Your task to perform on an android device: turn off improve location accuracy Image 0: 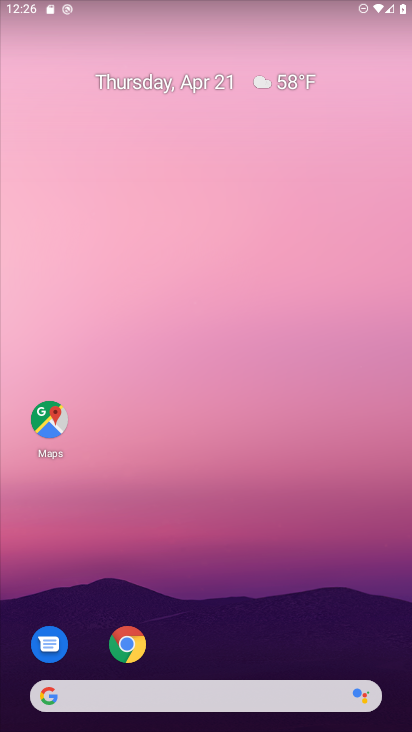
Step 0: drag from (240, 660) to (246, 217)
Your task to perform on an android device: turn off improve location accuracy Image 1: 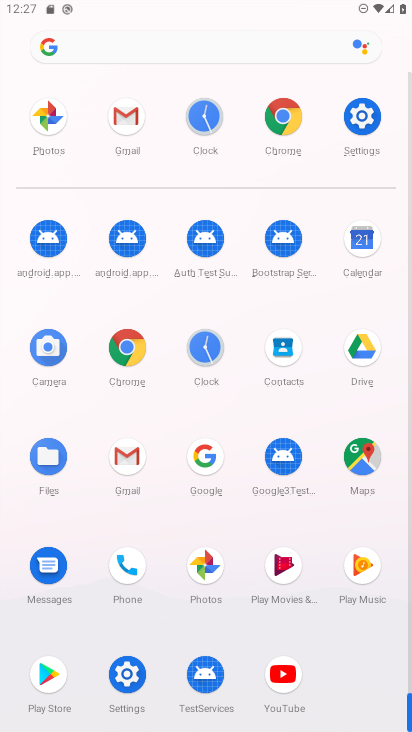
Step 1: drag from (332, 694) to (317, 282)
Your task to perform on an android device: turn off improve location accuracy Image 2: 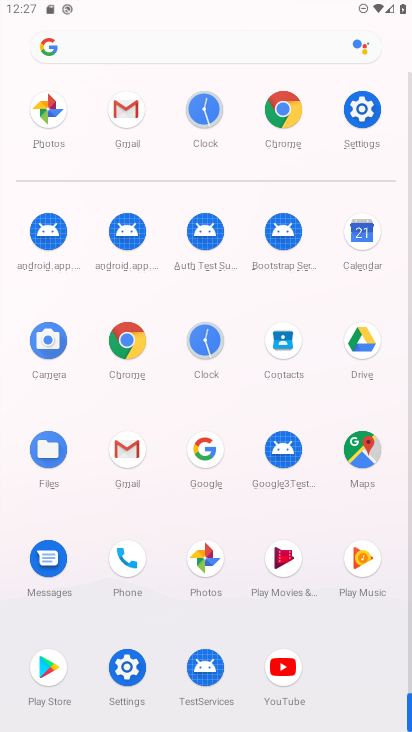
Step 2: drag from (307, 665) to (259, 314)
Your task to perform on an android device: turn off improve location accuracy Image 3: 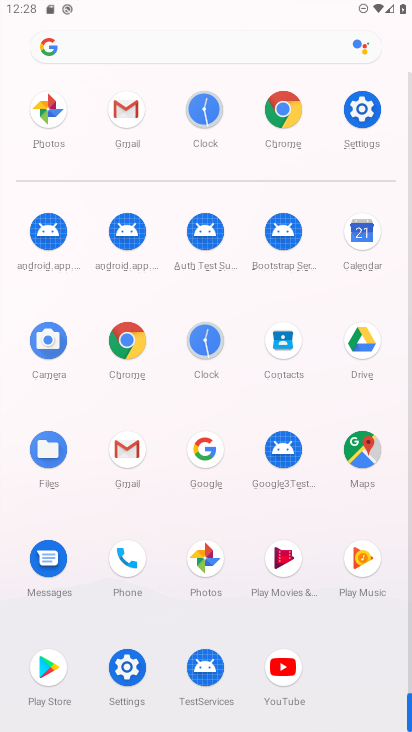
Step 3: press home button
Your task to perform on an android device: turn off improve location accuracy Image 4: 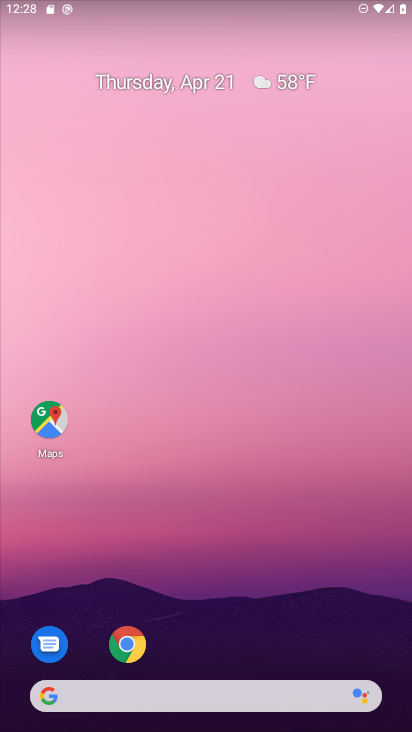
Step 4: drag from (180, 657) to (230, 113)
Your task to perform on an android device: turn off improve location accuracy Image 5: 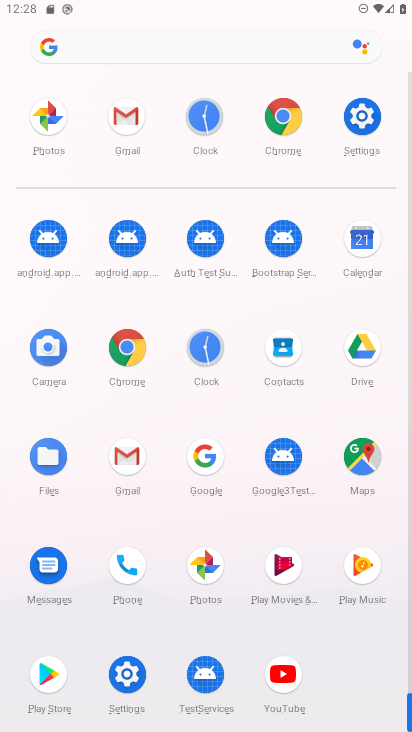
Step 5: click (366, 123)
Your task to perform on an android device: turn off improve location accuracy Image 6: 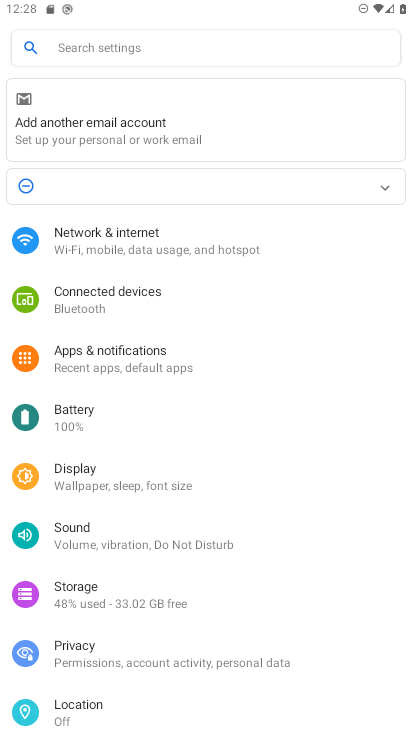
Step 6: drag from (222, 582) to (250, 208)
Your task to perform on an android device: turn off improve location accuracy Image 7: 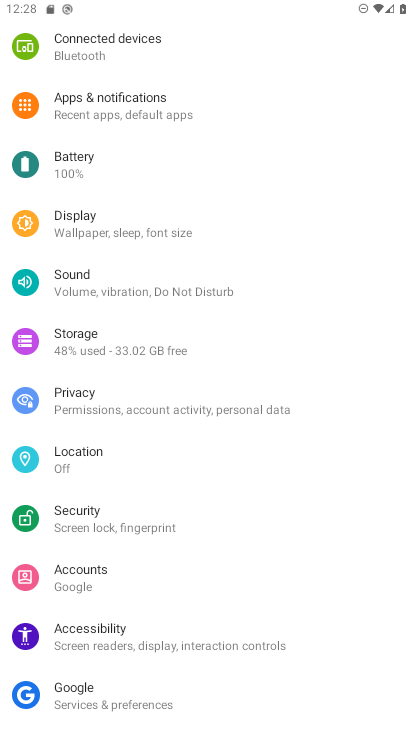
Step 7: drag from (223, 563) to (240, 239)
Your task to perform on an android device: turn off improve location accuracy Image 8: 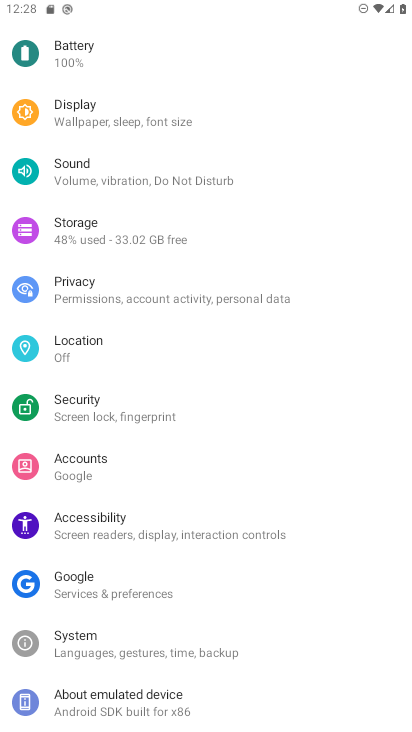
Step 8: drag from (155, 287) to (132, 548)
Your task to perform on an android device: turn off improve location accuracy Image 9: 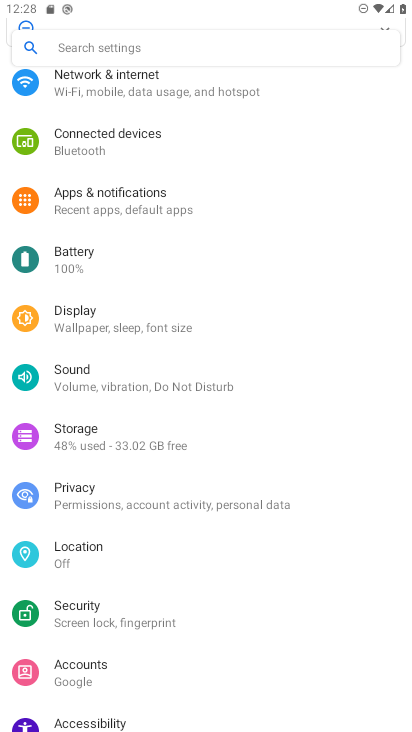
Step 9: drag from (162, 210) to (155, 406)
Your task to perform on an android device: turn off improve location accuracy Image 10: 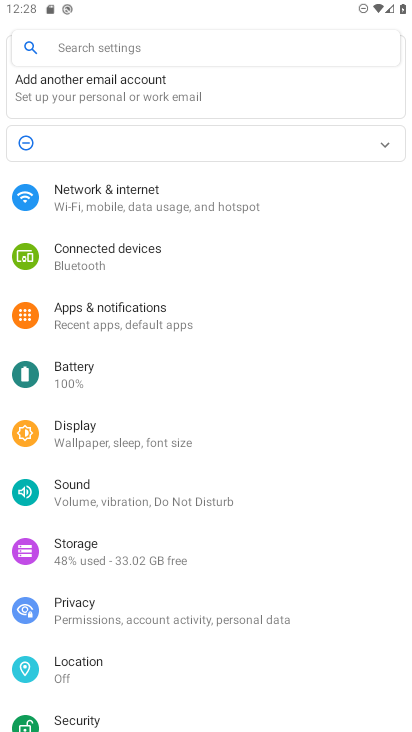
Step 10: drag from (143, 642) to (157, 248)
Your task to perform on an android device: turn off improve location accuracy Image 11: 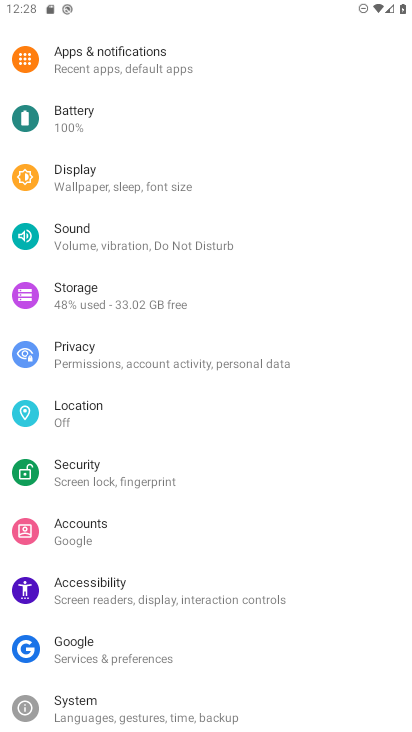
Step 11: click (77, 411)
Your task to perform on an android device: turn off improve location accuracy Image 12: 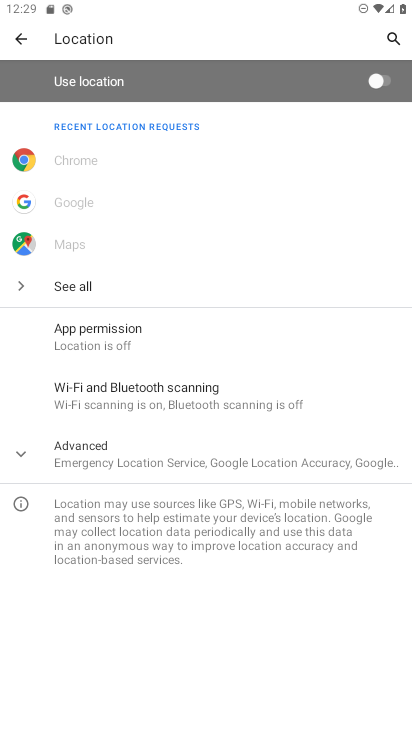
Step 12: press home button
Your task to perform on an android device: turn off improve location accuracy Image 13: 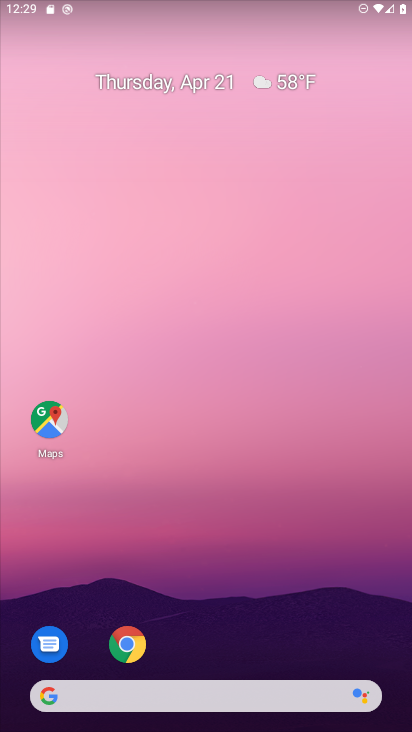
Step 13: drag from (179, 611) to (207, 154)
Your task to perform on an android device: turn off improve location accuracy Image 14: 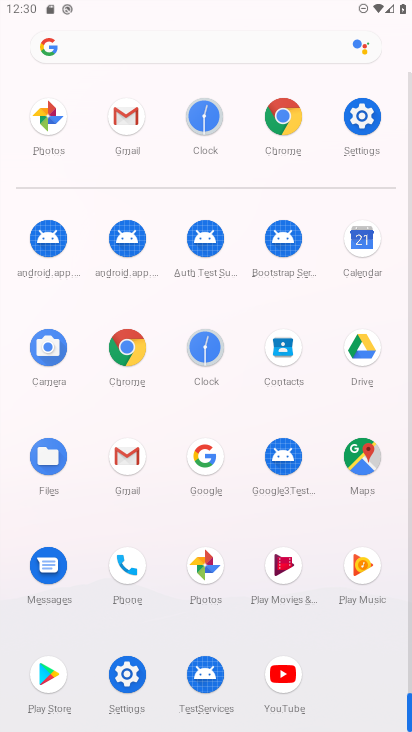
Step 14: click (357, 120)
Your task to perform on an android device: turn off improve location accuracy Image 15: 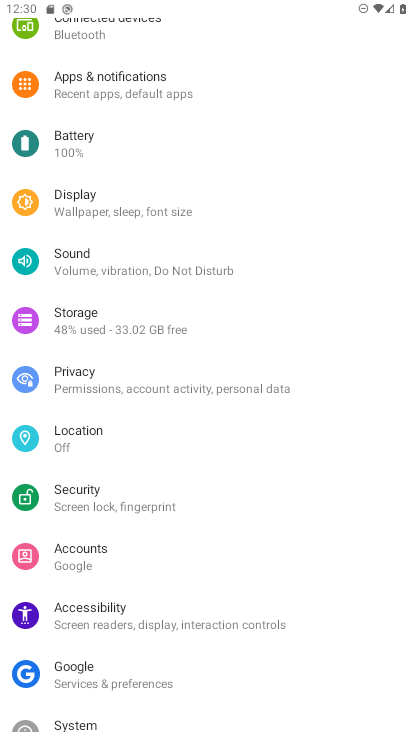
Step 15: drag from (171, 585) to (171, 212)
Your task to perform on an android device: turn off improve location accuracy Image 16: 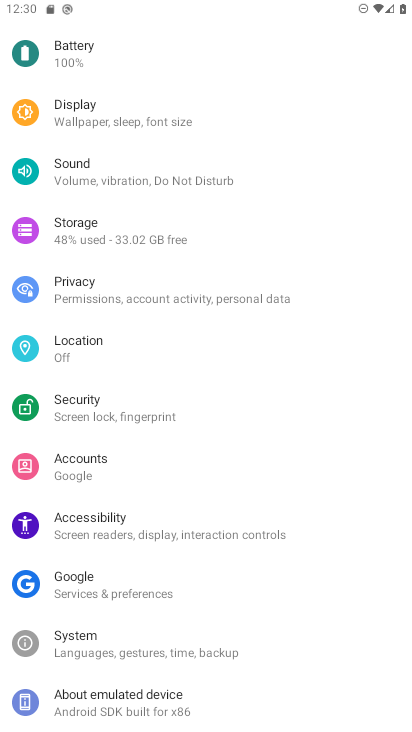
Step 16: drag from (180, 227) to (177, 519)
Your task to perform on an android device: turn off improve location accuracy Image 17: 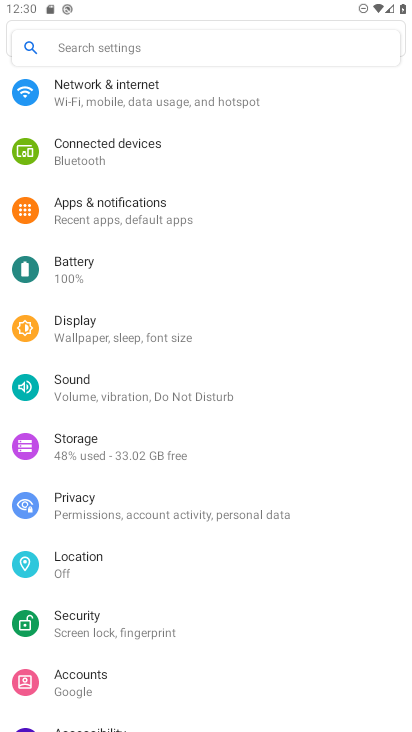
Step 17: drag from (119, 154) to (144, 438)
Your task to perform on an android device: turn off improve location accuracy Image 18: 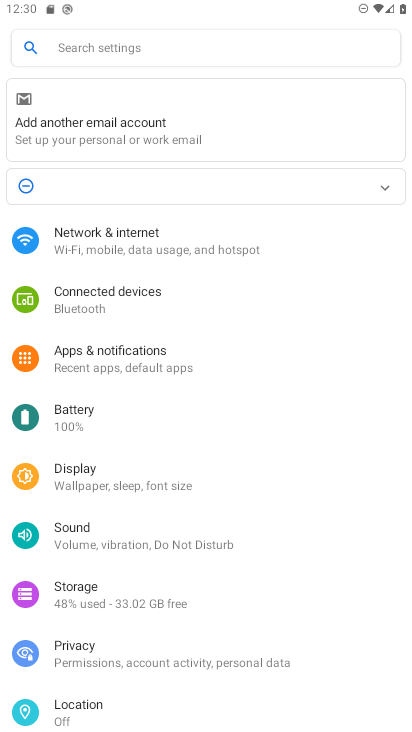
Step 18: drag from (174, 534) to (173, 146)
Your task to perform on an android device: turn off improve location accuracy Image 19: 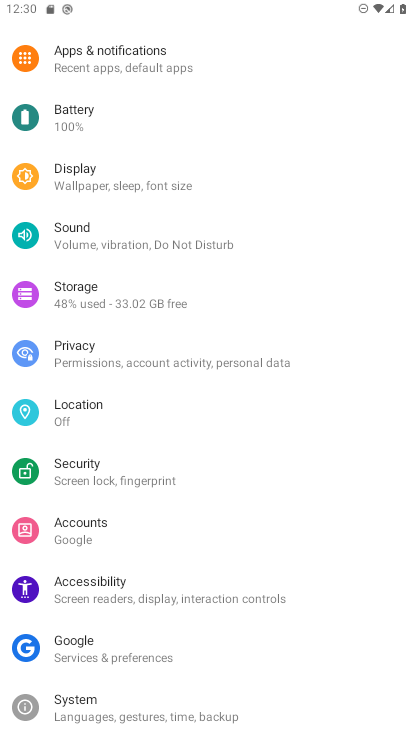
Step 19: drag from (176, 529) to (214, 159)
Your task to perform on an android device: turn off improve location accuracy Image 20: 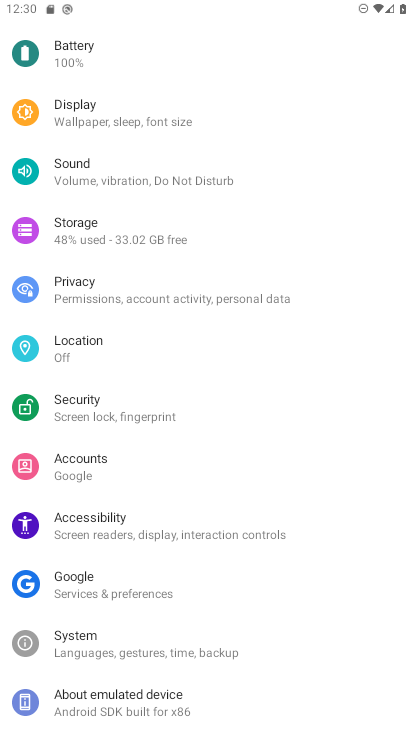
Step 20: click (66, 341)
Your task to perform on an android device: turn off improve location accuracy Image 21: 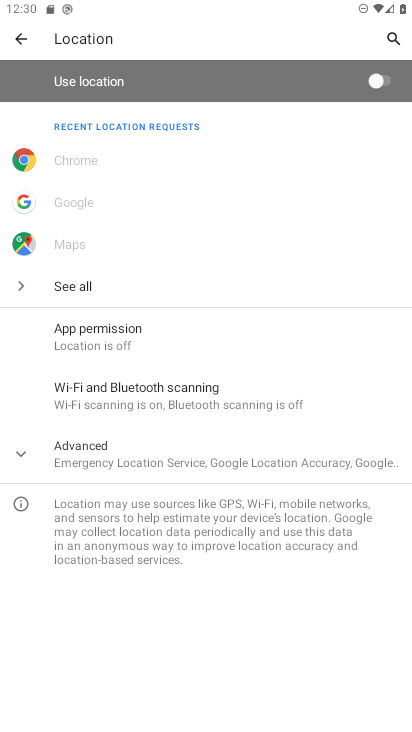
Step 21: click (239, 457)
Your task to perform on an android device: turn off improve location accuracy Image 22: 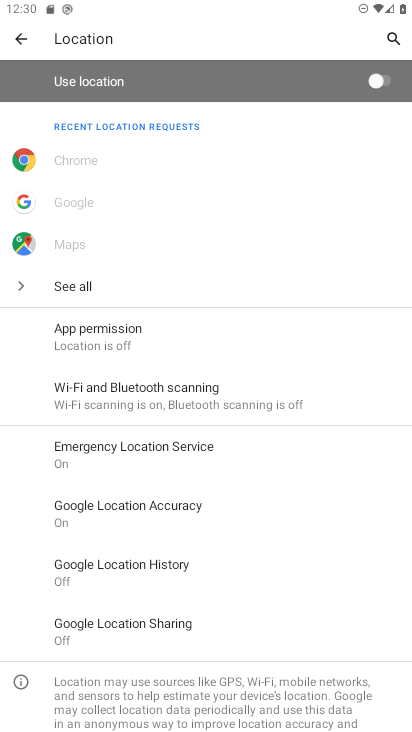
Step 22: click (147, 517)
Your task to perform on an android device: turn off improve location accuracy Image 23: 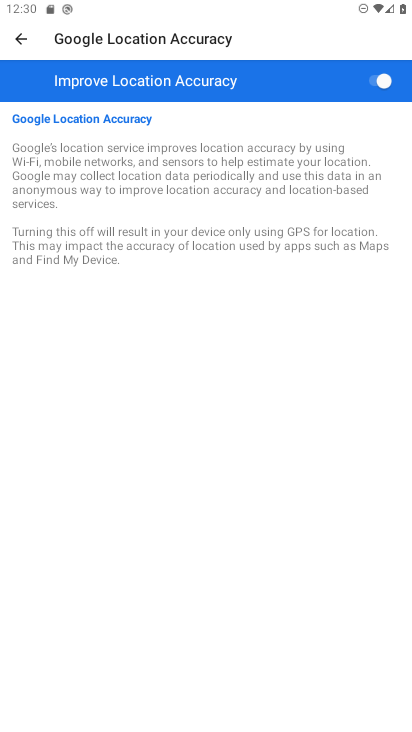
Step 23: click (381, 81)
Your task to perform on an android device: turn off improve location accuracy Image 24: 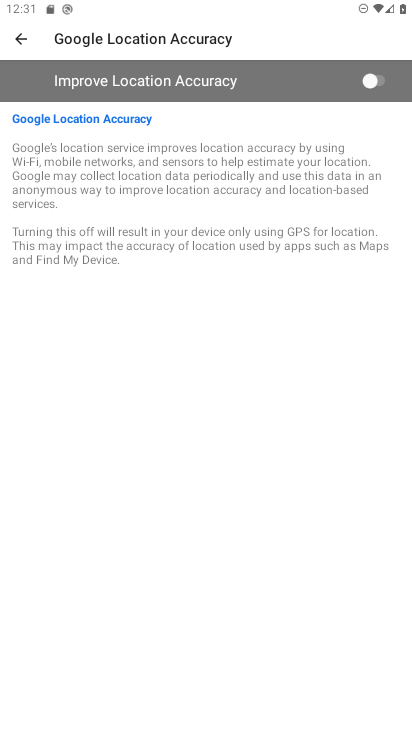
Step 24: task complete